Your task to perform on an android device: toggle data saver in the chrome app Image 0: 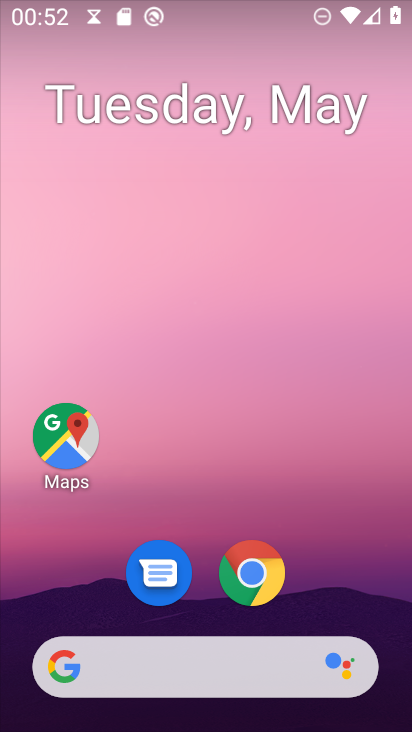
Step 0: drag from (361, 566) to (240, 108)
Your task to perform on an android device: toggle data saver in the chrome app Image 1: 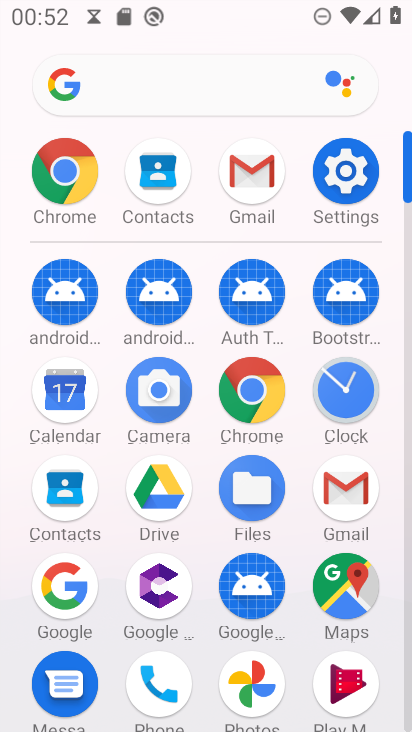
Step 1: click (251, 391)
Your task to perform on an android device: toggle data saver in the chrome app Image 2: 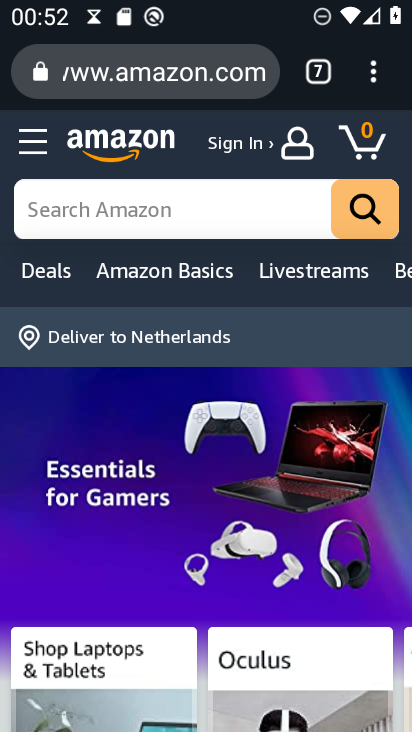
Step 2: click (364, 63)
Your task to perform on an android device: toggle data saver in the chrome app Image 3: 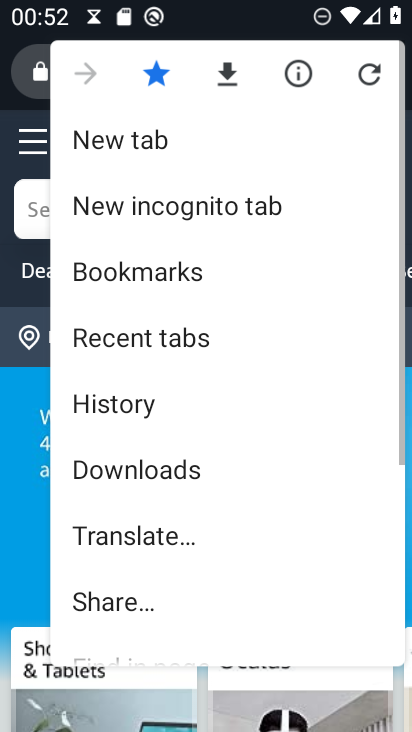
Step 3: drag from (252, 600) to (214, 197)
Your task to perform on an android device: toggle data saver in the chrome app Image 4: 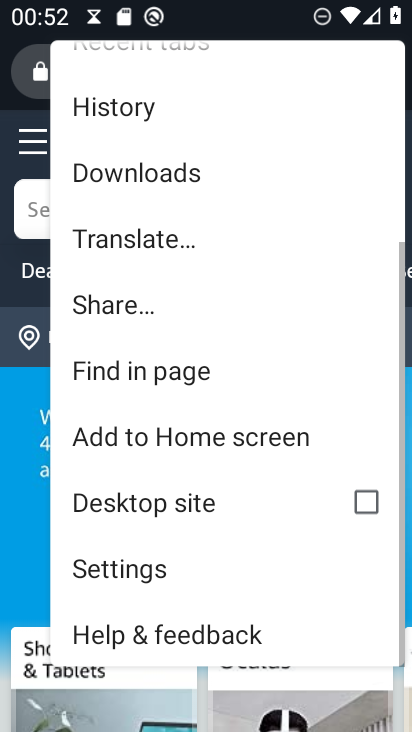
Step 4: click (190, 571)
Your task to perform on an android device: toggle data saver in the chrome app Image 5: 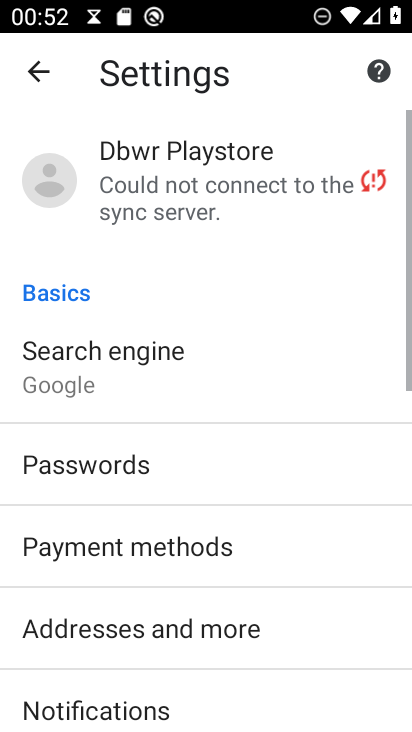
Step 5: drag from (210, 613) to (155, 224)
Your task to perform on an android device: toggle data saver in the chrome app Image 6: 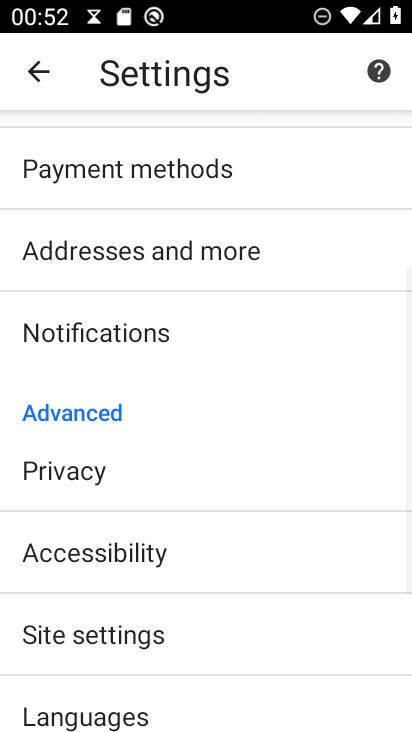
Step 6: drag from (177, 561) to (170, 260)
Your task to perform on an android device: toggle data saver in the chrome app Image 7: 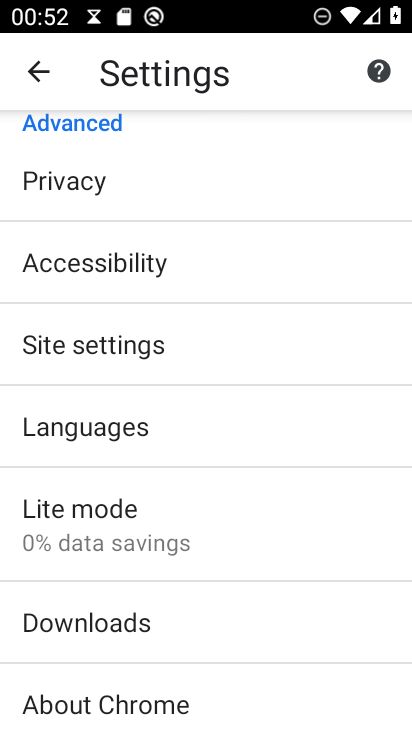
Step 7: click (137, 511)
Your task to perform on an android device: toggle data saver in the chrome app Image 8: 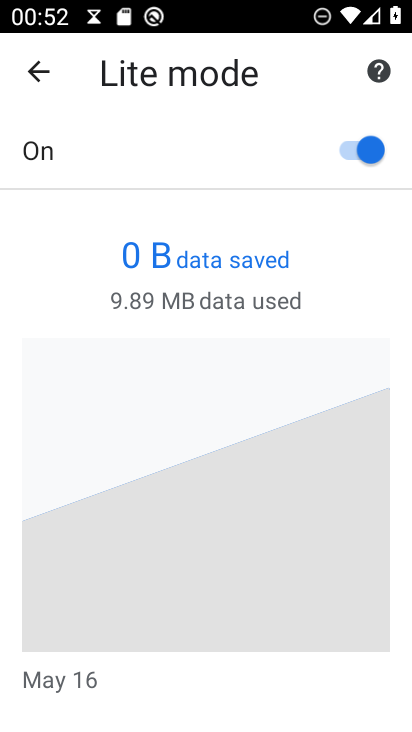
Step 8: click (372, 152)
Your task to perform on an android device: toggle data saver in the chrome app Image 9: 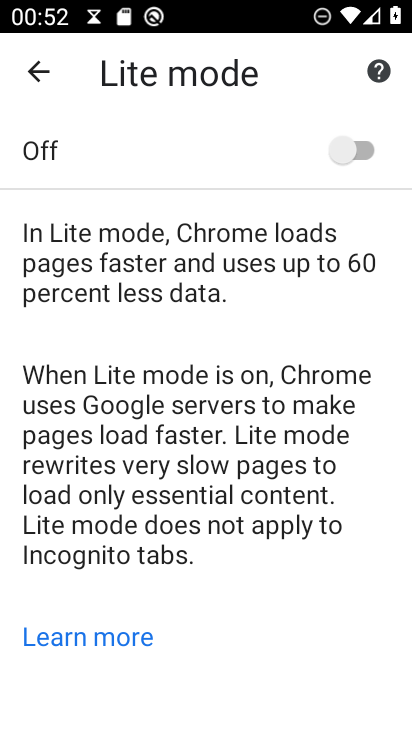
Step 9: task complete